Your task to perform on an android device: turn smart compose on in the gmail app Image 0: 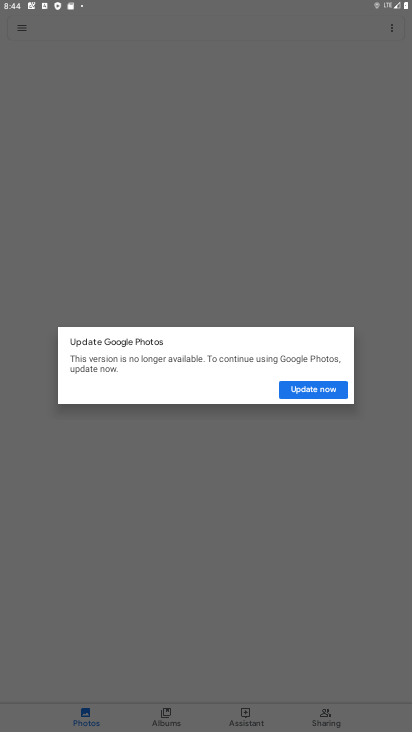
Step 0: press home button
Your task to perform on an android device: turn smart compose on in the gmail app Image 1: 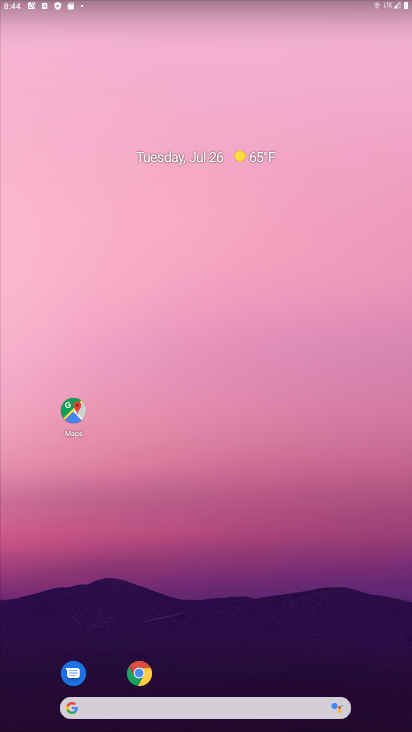
Step 1: drag from (204, 647) to (183, 212)
Your task to perform on an android device: turn smart compose on in the gmail app Image 2: 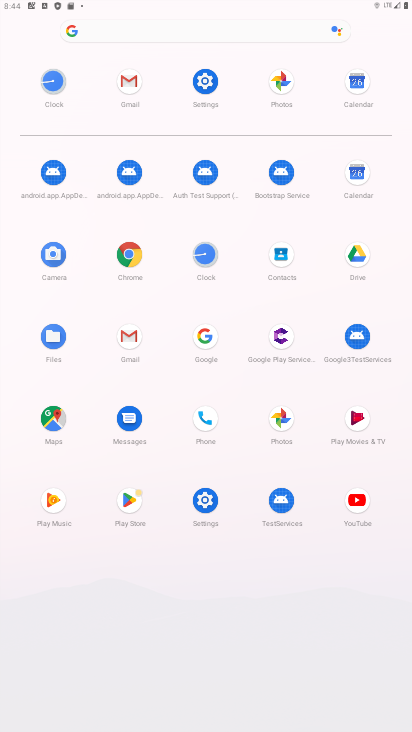
Step 2: click (141, 84)
Your task to perform on an android device: turn smart compose on in the gmail app Image 3: 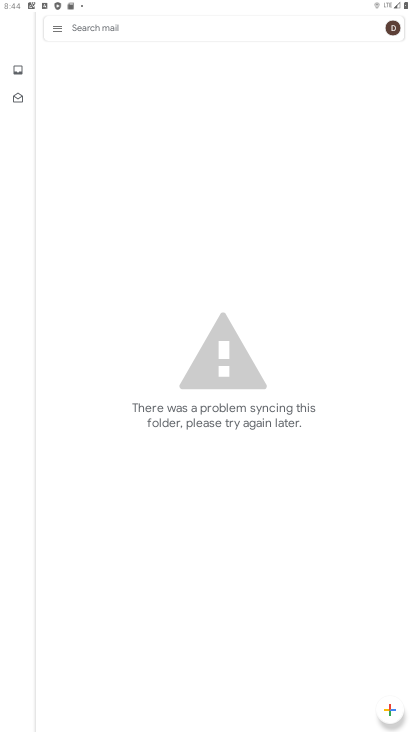
Step 3: click (51, 29)
Your task to perform on an android device: turn smart compose on in the gmail app Image 4: 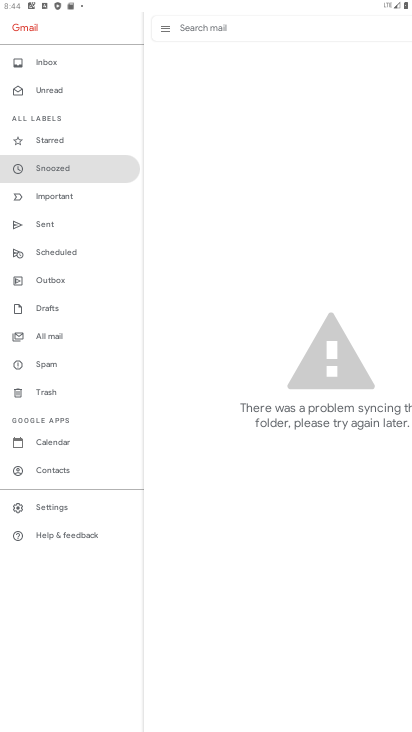
Step 4: click (59, 503)
Your task to perform on an android device: turn smart compose on in the gmail app Image 5: 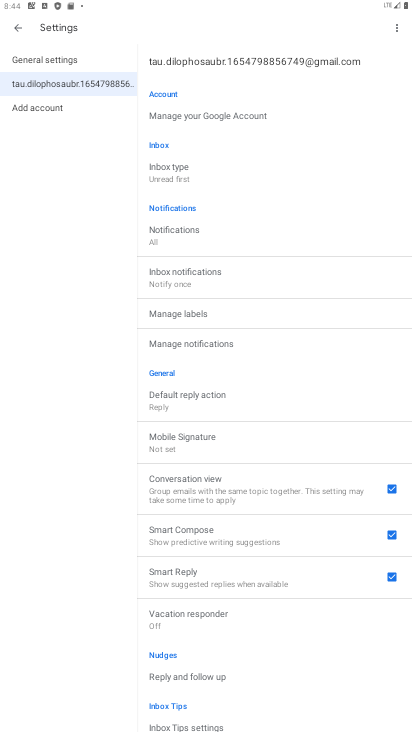
Step 5: task complete